Your task to perform on an android device: change the clock style Image 0: 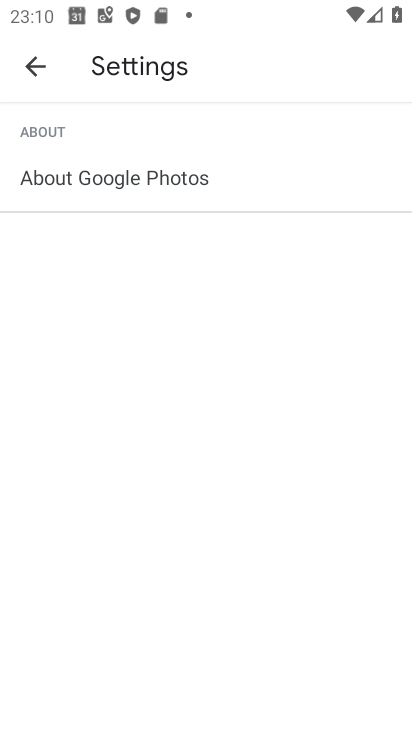
Step 0: press home button
Your task to perform on an android device: change the clock style Image 1: 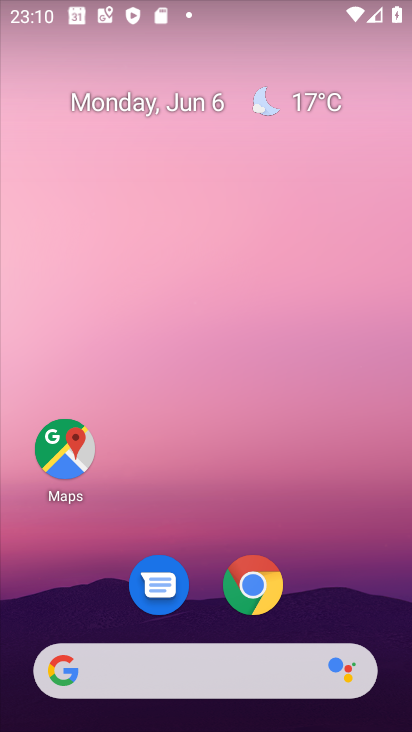
Step 1: drag from (261, 499) to (261, 30)
Your task to perform on an android device: change the clock style Image 2: 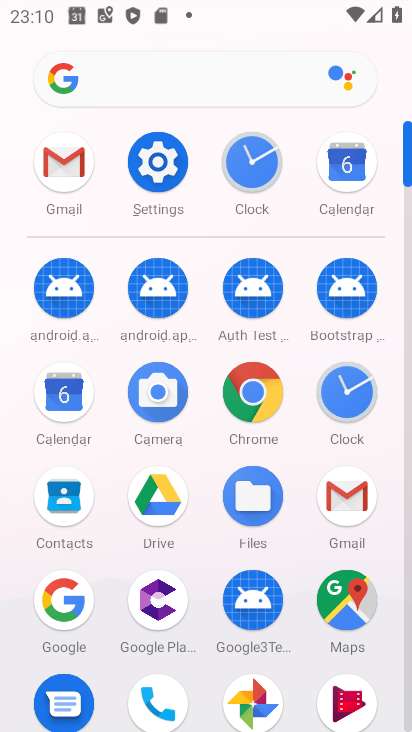
Step 2: click (245, 143)
Your task to perform on an android device: change the clock style Image 3: 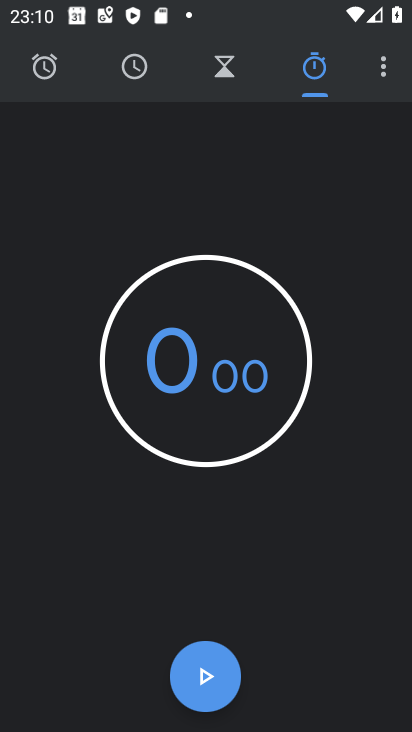
Step 3: click (48, 72)
Your task to perform on an android device: change the clock style Image 4: 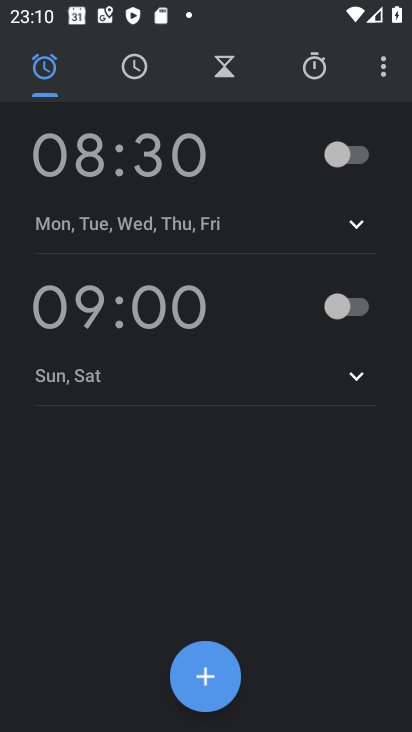
Step 4: click (391, 71)
Your task to perform on an android device: change the clock style Image 5: 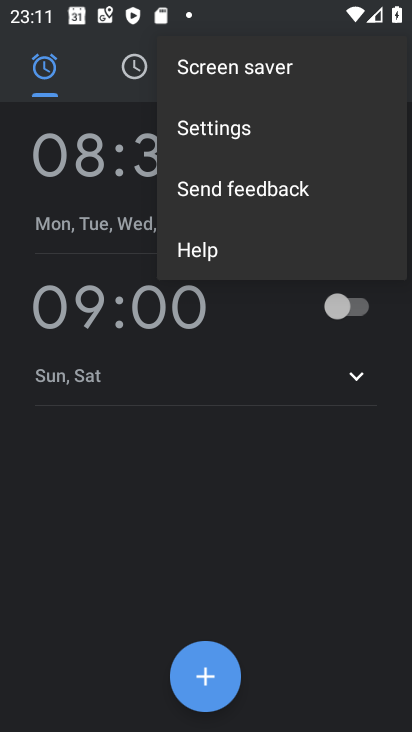
Step 5: click (290, 127)
Your task to perform on an android device: change the clock style Image 6: 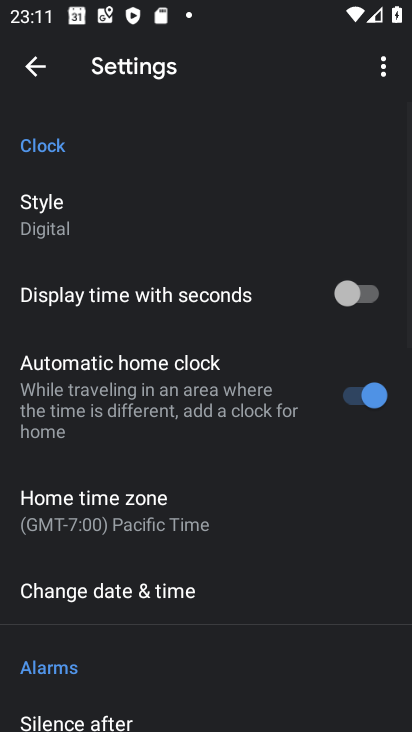
Step 6: click (92, 221)
Your task to perform on an android device: change the clock style Image 7: 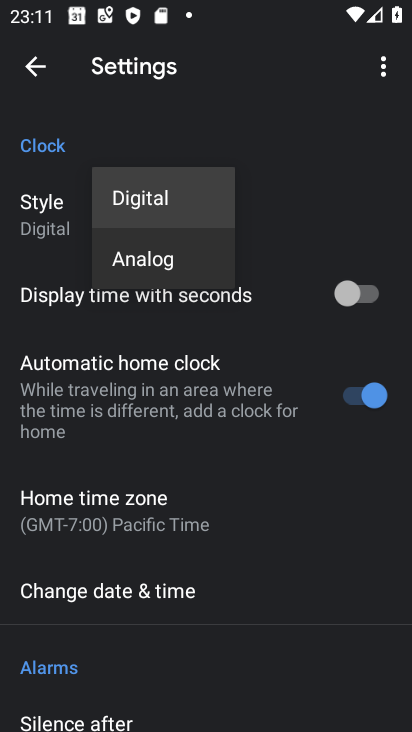
Step 7: click (130, 254)
Your task to perform on an android device: change the clock style Image 8: 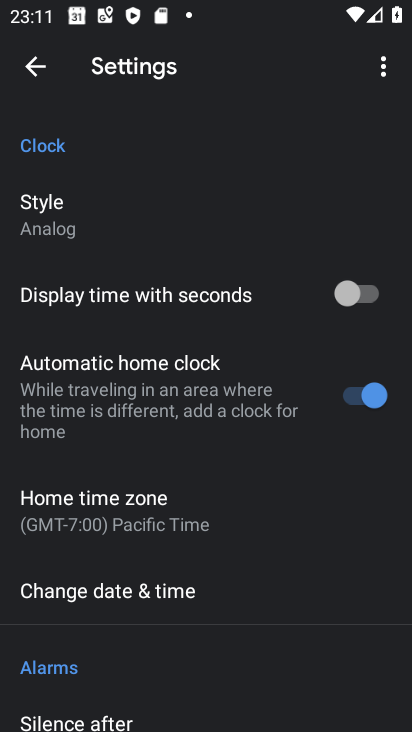
Step 8: task complete